Your task to perform on an android device: change the clock style Image 0: 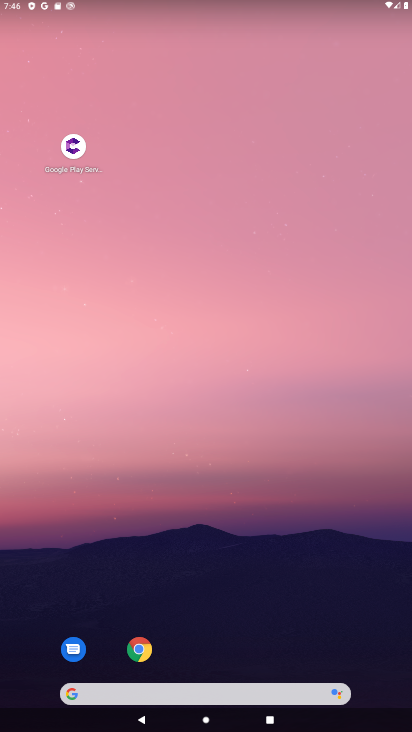
Step 0: drag from (252, 478) to (244, 179)
Your task to perform on an android device: change the clock style Image 1: 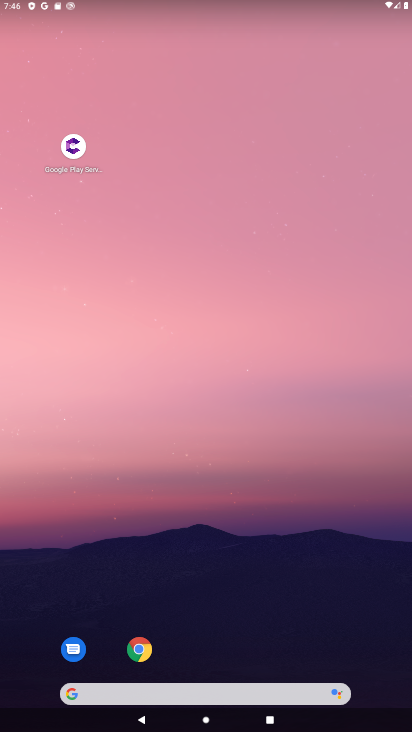
Step 1: click (220, 38)
Your task to perform on an android device: change the clock style Image 2: 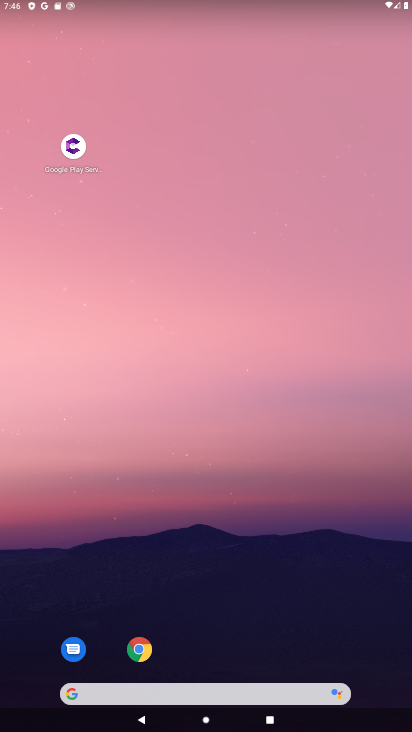
Step 2: drag from (252, 346) to (252, 25)
Your task to perform on an android device: change the clock style Image 3: 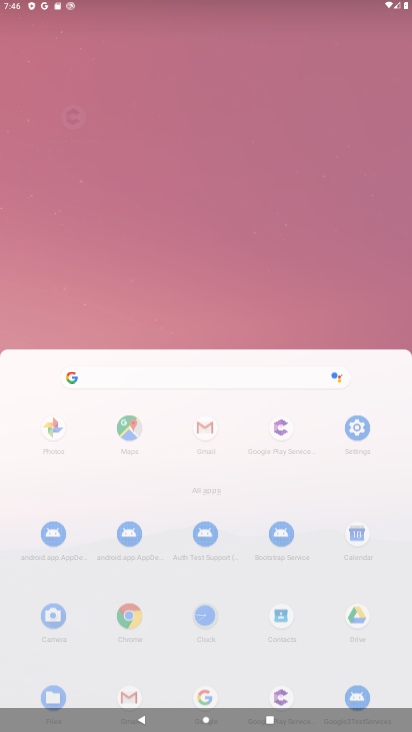
Step 3: drag from (206, 578) to (235, 133)
Your task to perform on an android device: change the clock style Image 4: 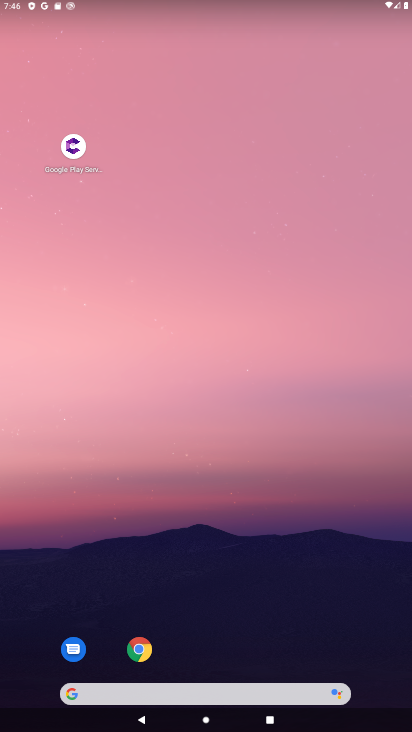
Step 4: drag from (264, 587) to (263, 200)
Your task to perform on an android device: change the clock style Image 5: 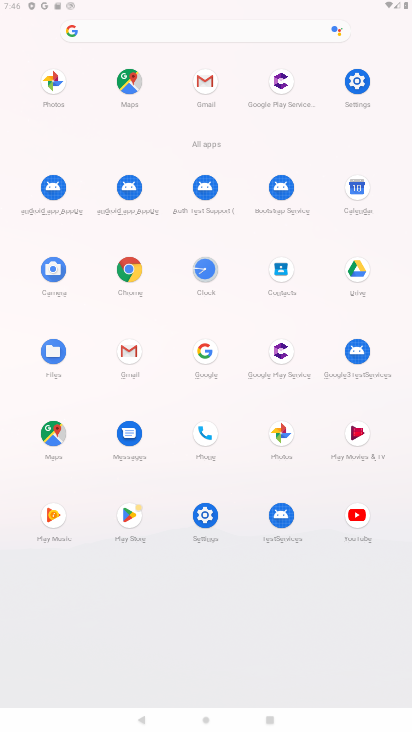
Step 5: drag from (271, 676) to (291, 287)
Your task to perform on an android device: change the clock style Image 6: 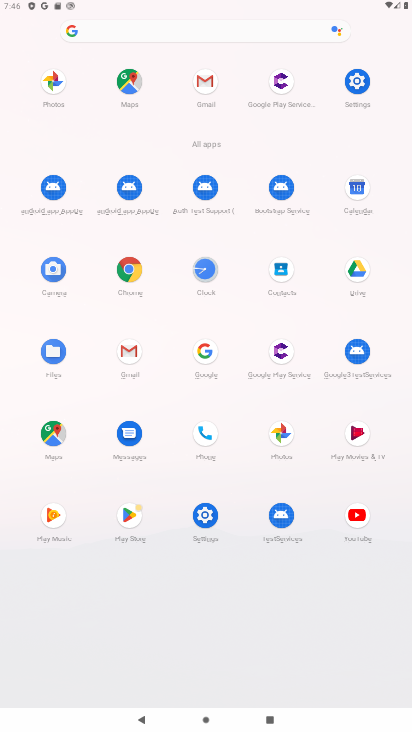
Step 6: click (217, 265)
Your task to perform on an android device: change the clock style Image 7: 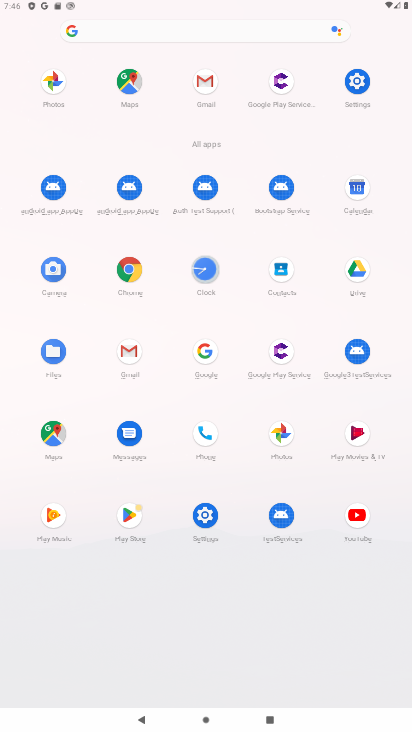
Step 7: click (196, 270)
Your task to perform on an android device: change the clock style Image 8: 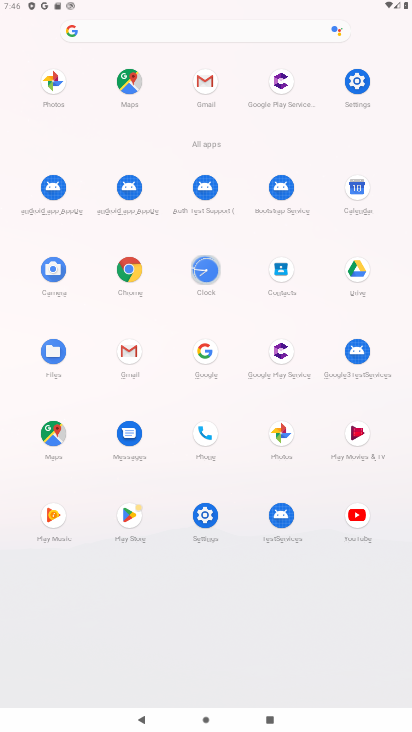
Step 8: click (198, 276)
Your task to perform on an android device: change the clock style Image 9: 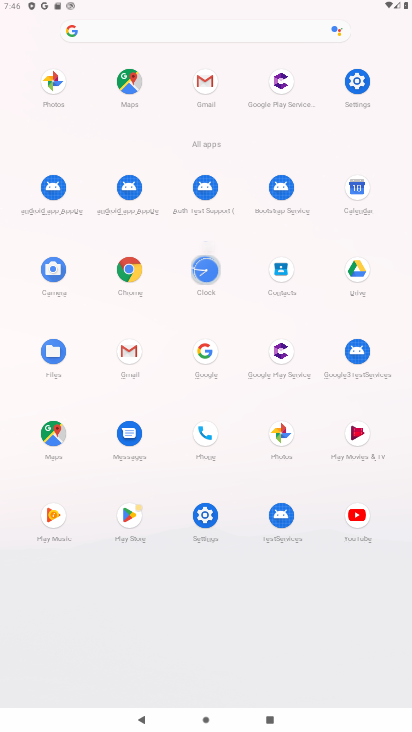
Step 9: click (199, 277)
Your task to perform on an android device: change the clock style Image 10: 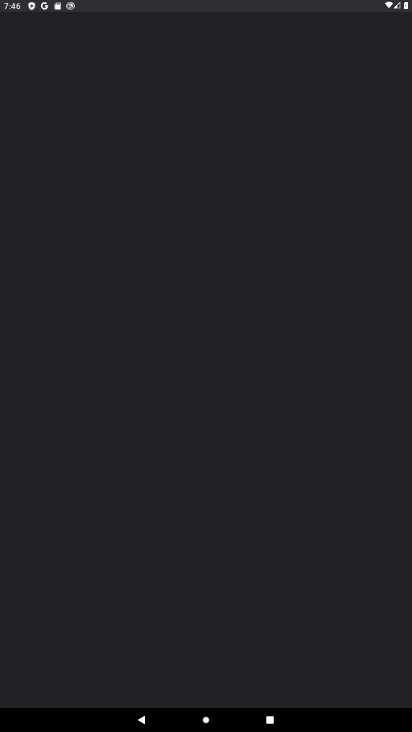
Step 10: click (206, 262)
Your task to perform on an android device: change the clock style Image 11: 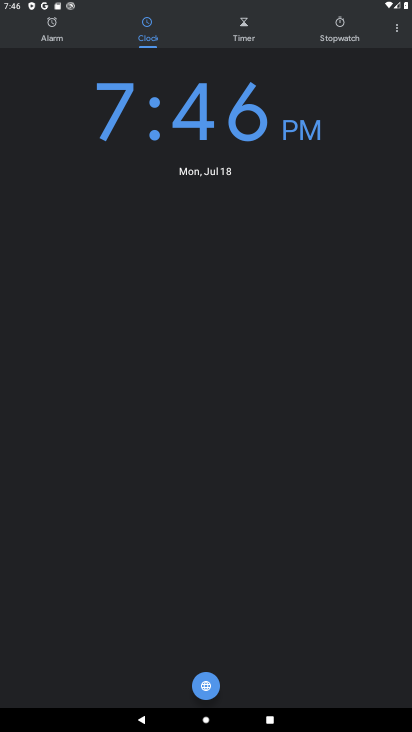
Step 11: click (404, 26)
Your task to perform on an android device: change the clock style Image 12: 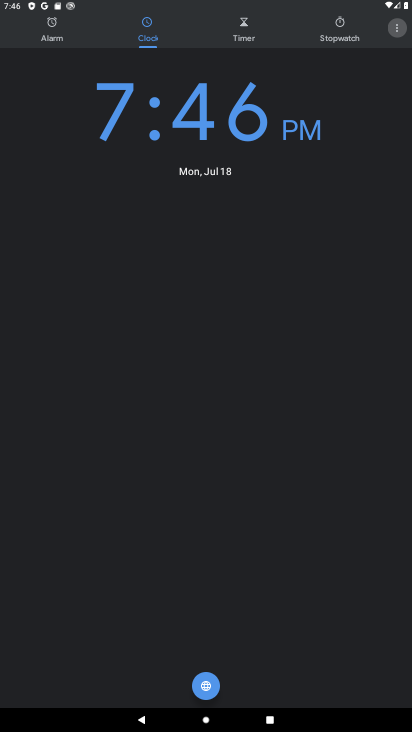
Step 12: click (404, 26)
Your task to perform on an android device: change the clock style Image 13: 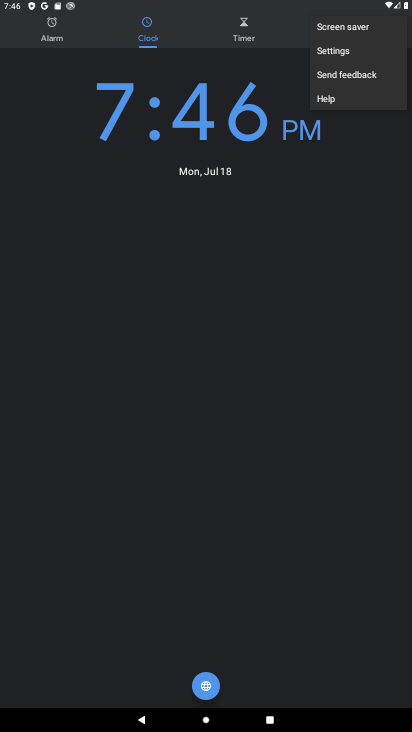
Step 13: click (399, 29)
Your task to perform on an android device: change the clock style Image 14: 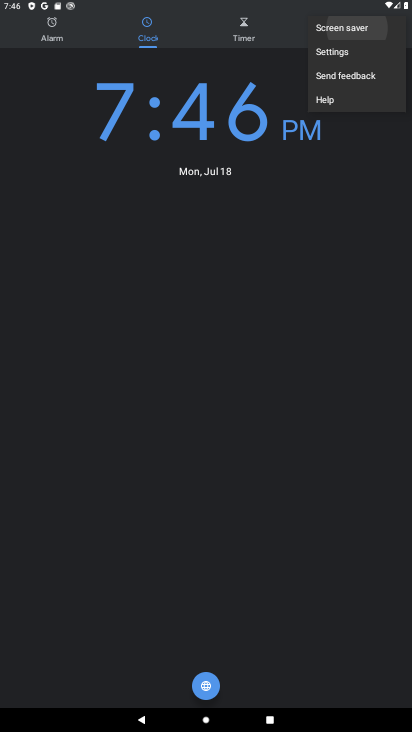
Step 14: click (399, 29)
Your task to perform on an android device: change the clock style Image 15: 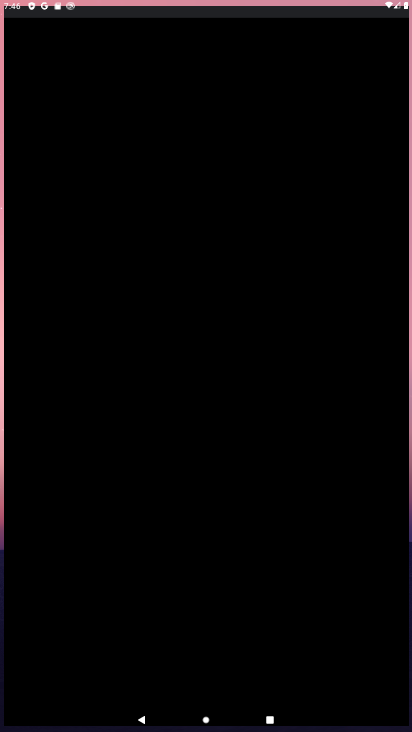
Step 15: click (343, 63)
Your task to perform on an android device: change the clock style Image 16: 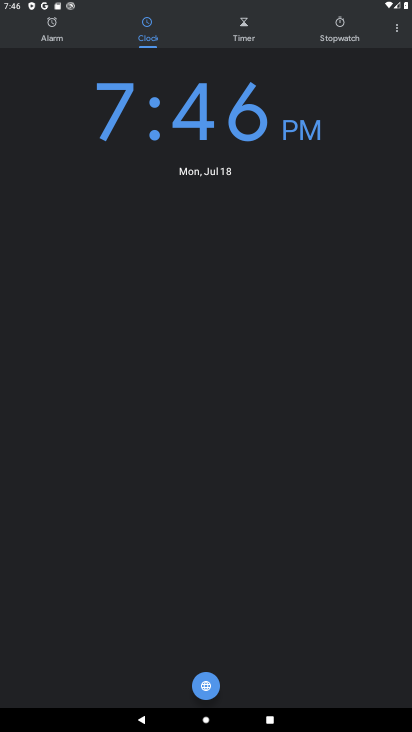
Step 16: press back button
Your task to perform on an android device: change the clock style Image 17: 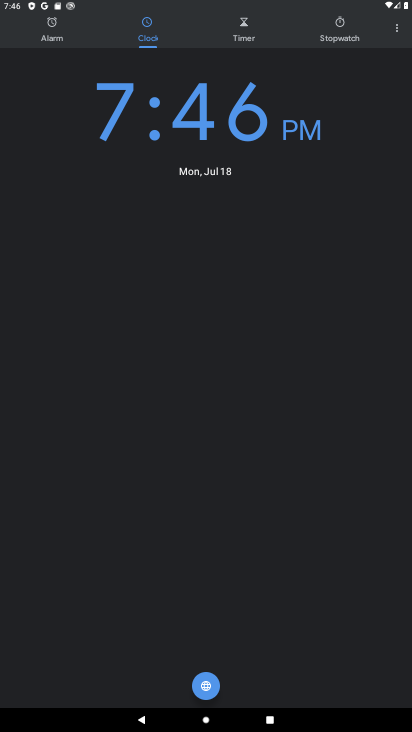
Step 17: click (403, 32)
Your task to perform on an android device: change the clock style Image 18: 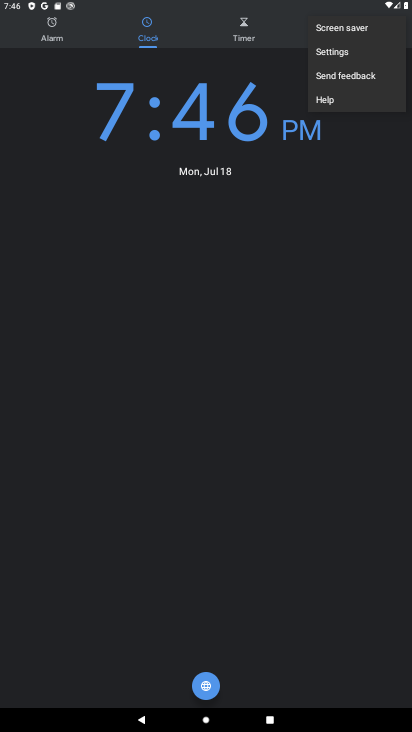
Step 18: click (345, 64)
Your task to perform on an android device: change the clock style Image 19: 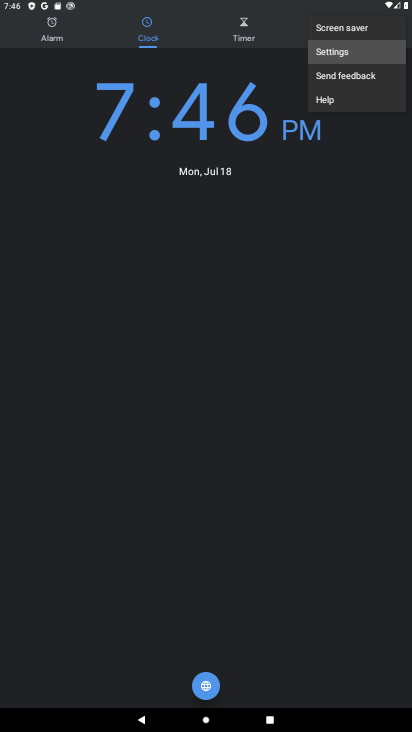
Step 19: click (344, 56)
Your task to perform on an android device: change the clock style Image 20: 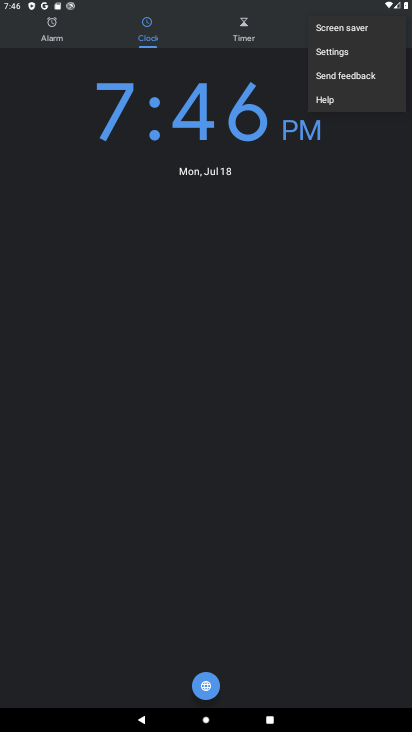
Step 20: click (345, 56)
Your task to perform on an android device: change the clock style Image 21: 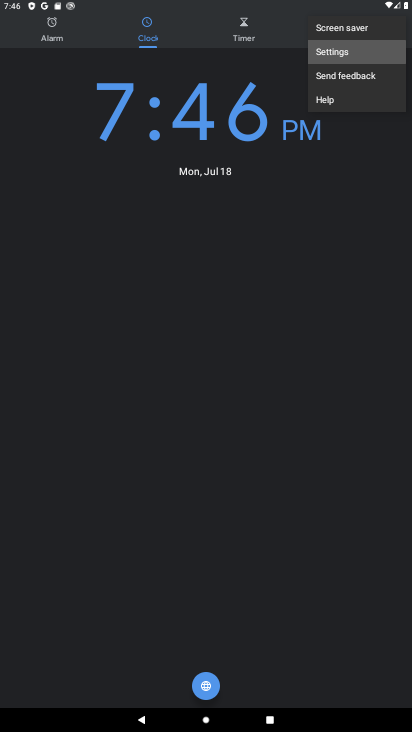
Step 21: click (345, 56)
Your task to perform on an android device: change the clock style Image 22: 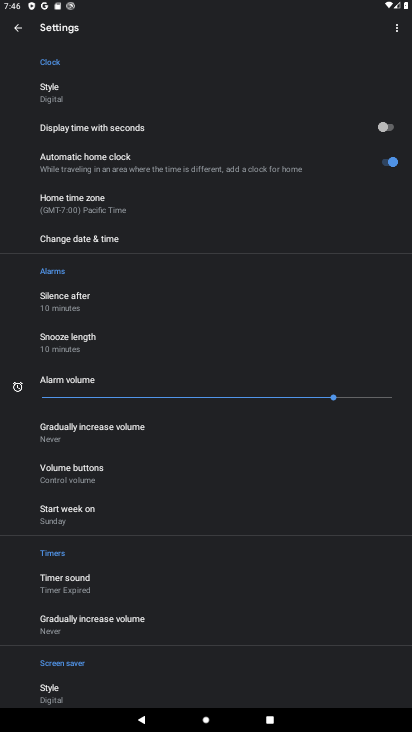
Step 22: click (65, 94)
Your task to perform on an android device: change the clock style Image 23: 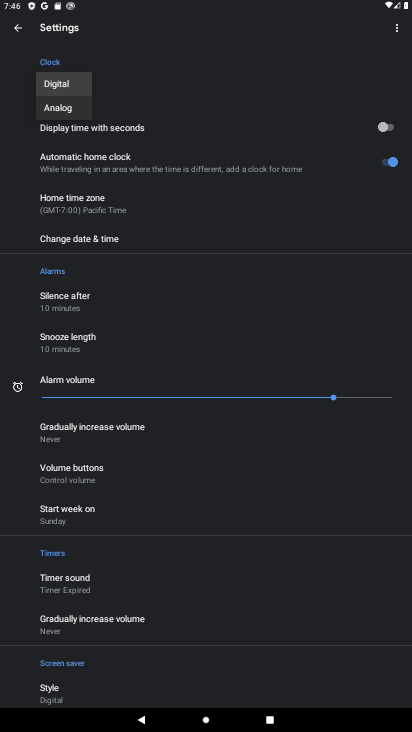
Step 23: click (65, 112)
Your task to perform on an android device: change the clock style Image 24: 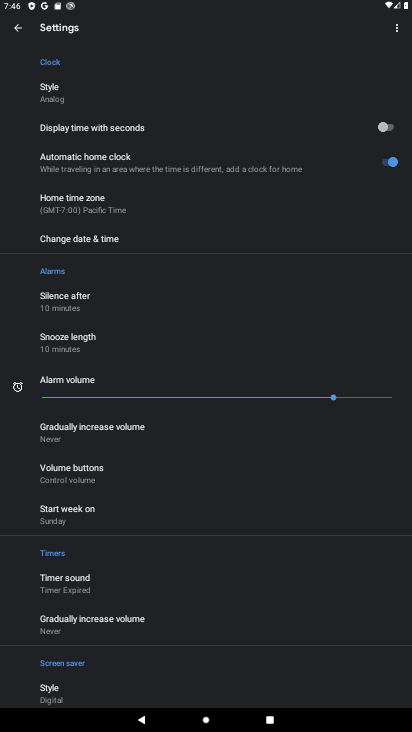
Step 24: task complete